Your task to perform on an android device: show emergency info Image 0: 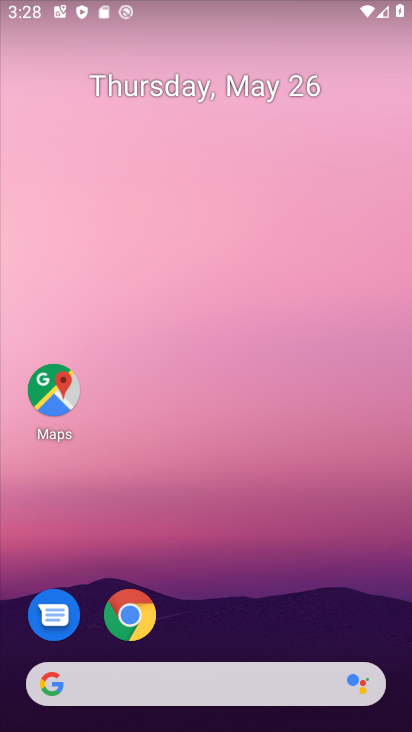
Step 0: drag from (264, 582) to (261, 113)
Your task to perform on an android device: show emergency info Image 1: 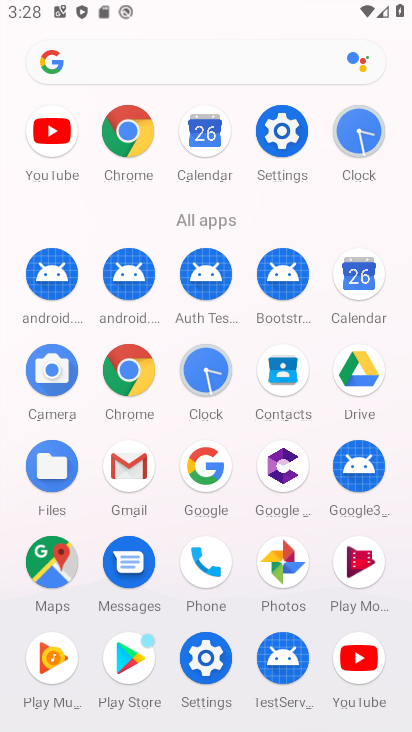
Step 1: drag from (245, 552) to (244, 348)
Your task to perform on an android device: show emergency info Image 2: 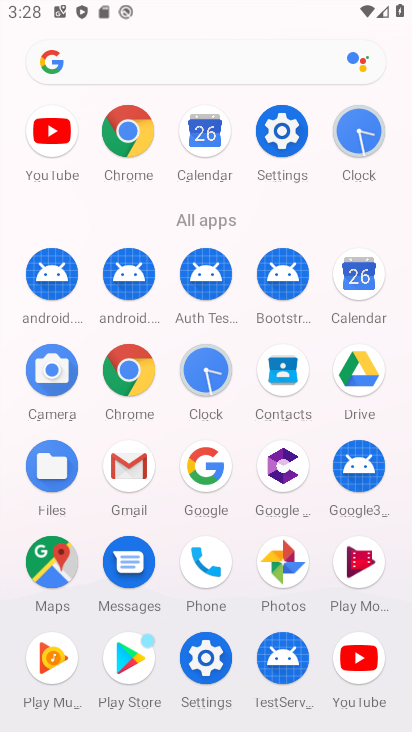
Step 2: click (216, 652)
Your task to perform on an android device: show emergency info Image 3: 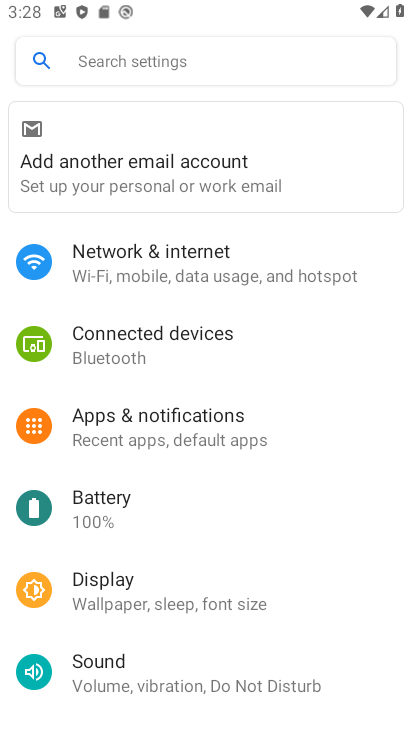
Step 3: drag from (224, 657) to (264, 158)
Your task to perform on an android device: show emergency info Image 4: 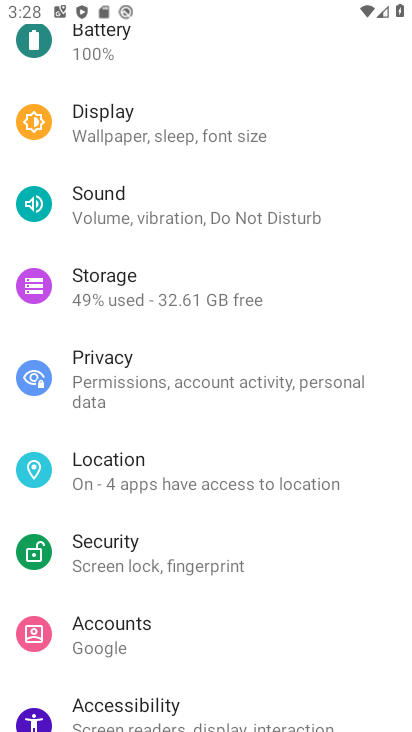
Step 4: drag from (235, 589) to (304, 43)
Your task to perform on an android device: show emergency info Image 5: 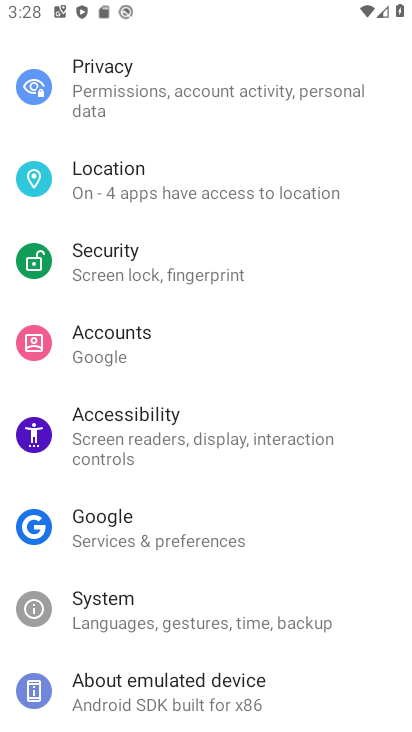
Step 5: drag from (278, 560) to (336, 109)
Your task to perform on an android device: show emergency info Image 6: 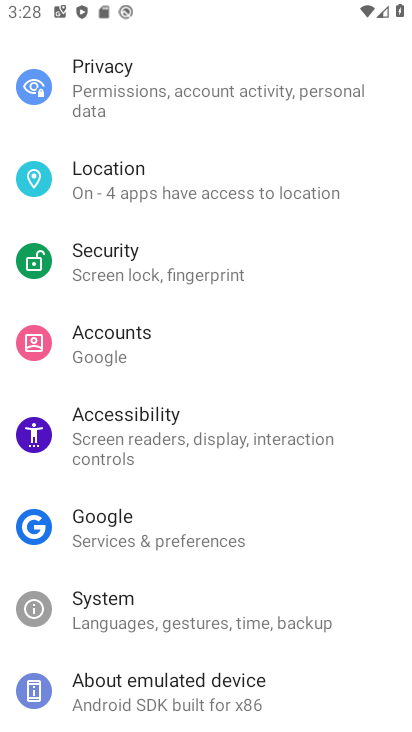
Step 6: drag from (300, 541) to (329, 158)
Your task to perform on an android device: show emergency info Image 7: 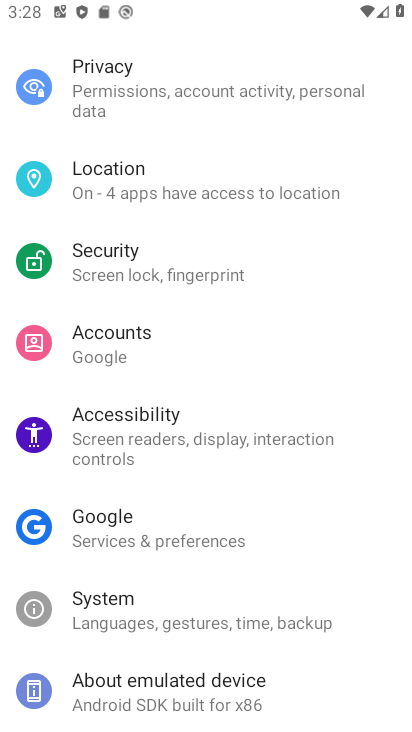
Step 7: click (223, 669)
Your task to perform on an android device: show emergency info Image 8: 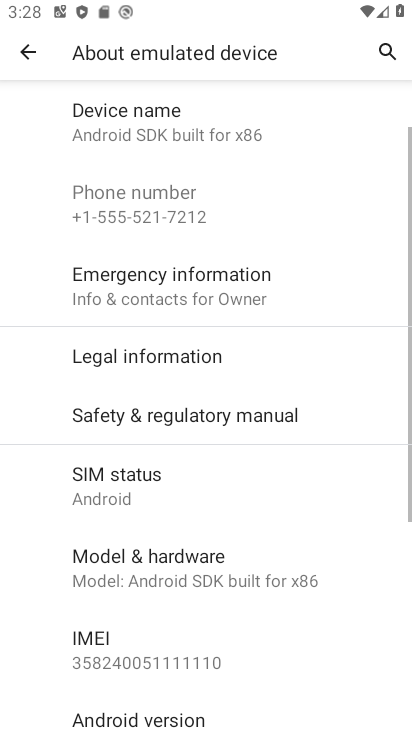
Step 8: click (231, 303)
Your task to perform on an android device: show emergency info Image 9: 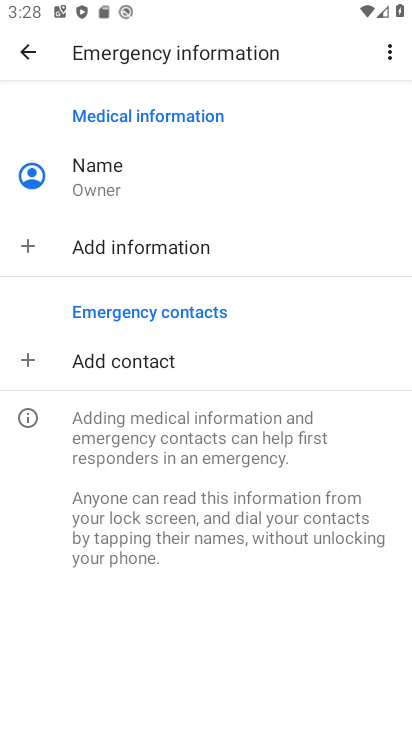
Step 9: task complete